Your task to perform on an android device: Search for corsair k70 on costco.com, select the first entry, add it to the cart, then select checkout. Image 0: 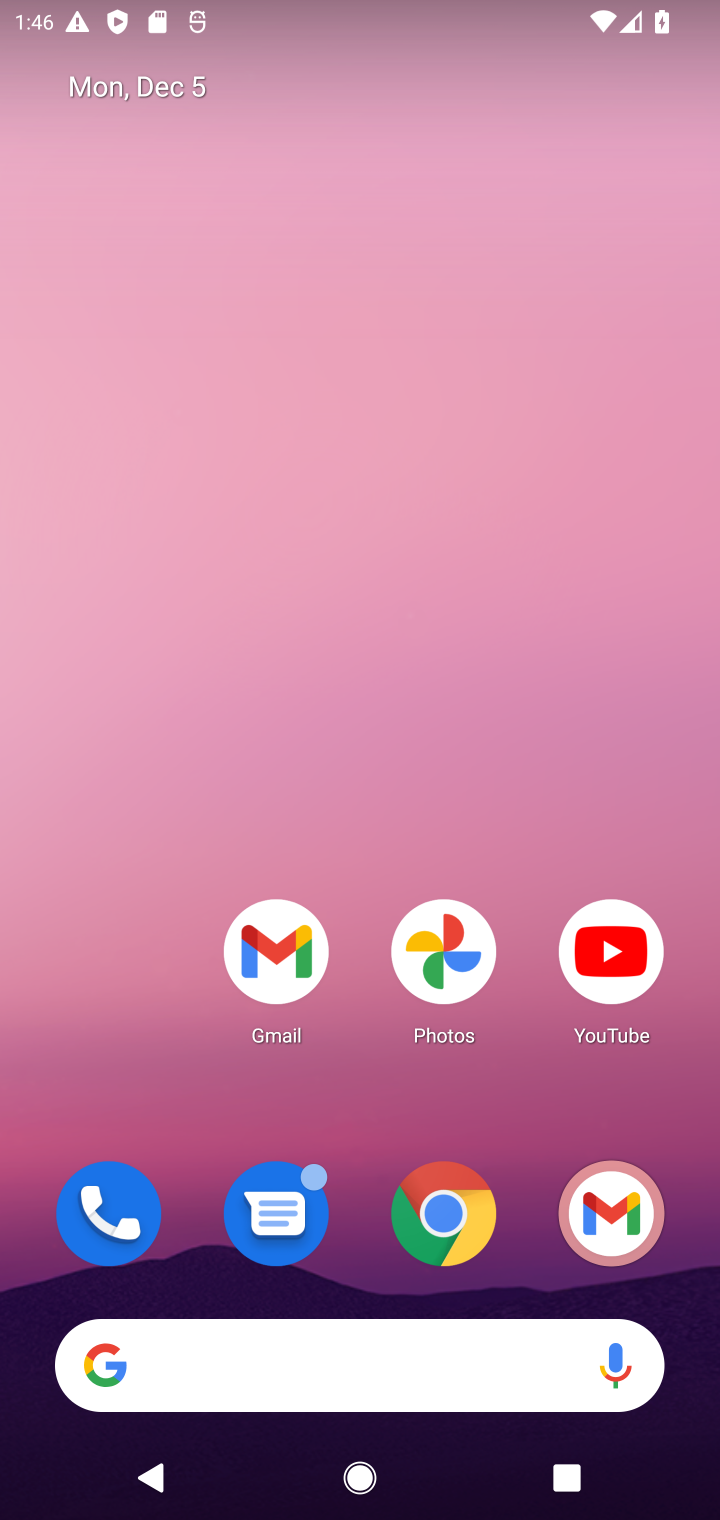
Step 0: click (456, 1232)
Your task to perform on an android device: Search for corsair k70 on costco.com, select the first entry, add it to the cart, then select checkout. Image 1: 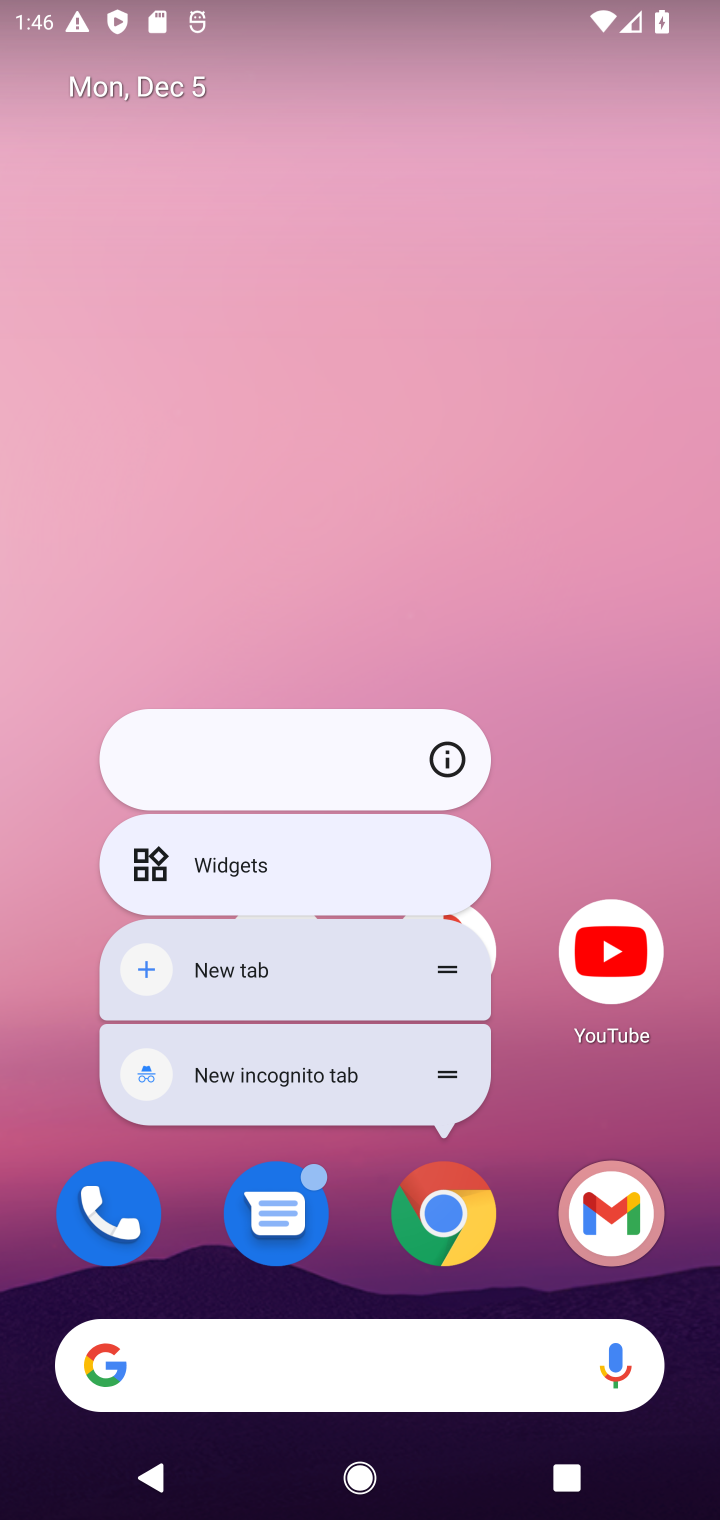
Step 1: click (459, 1217)
Your task to perform on an android device: Search for corsair k70 on costco.com, select the first entry, add it to the cart, then select checkout. Image 2: 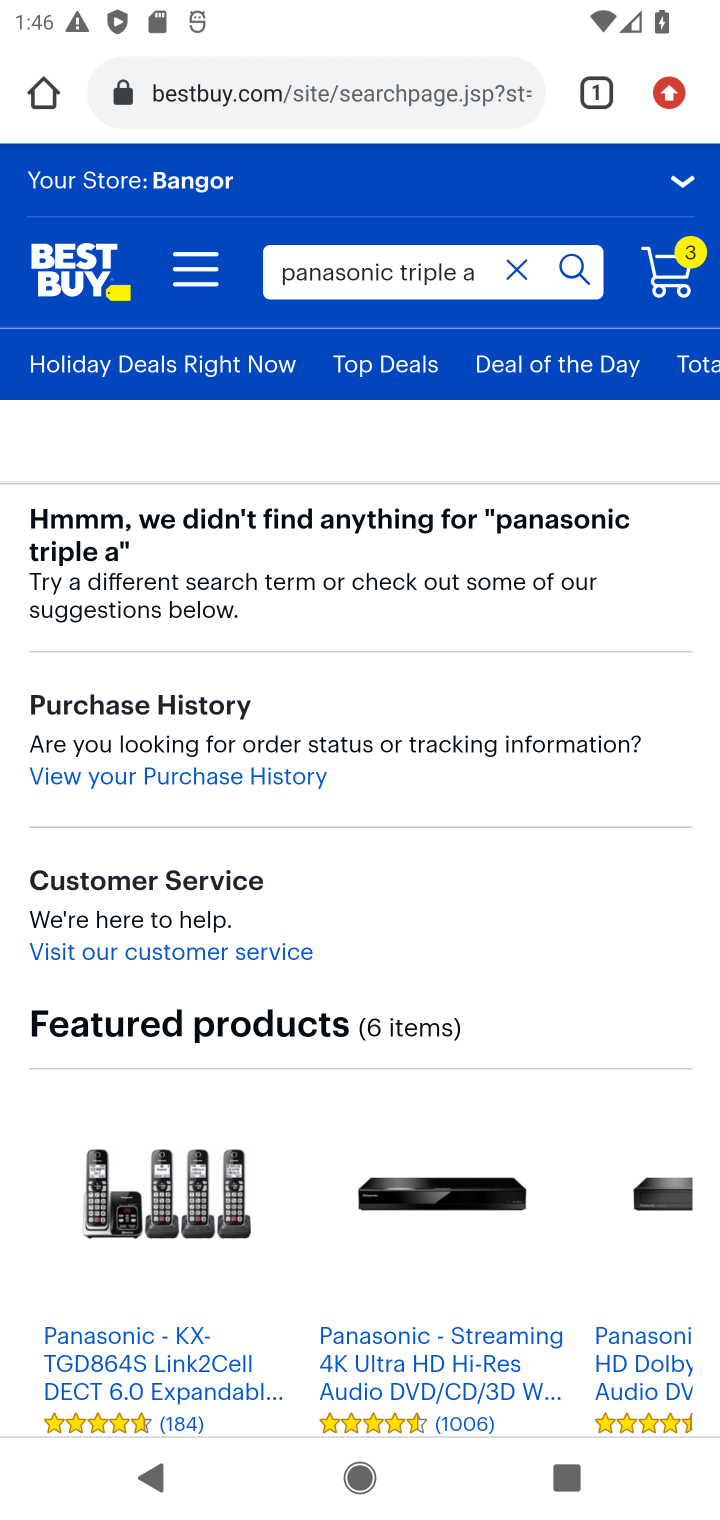
Step 2: click (325, 102)
Your task to perform on an android device: Search for corsair k70 on costco.com, select the first entry, add it to the cart, then select checkout. Image 3: 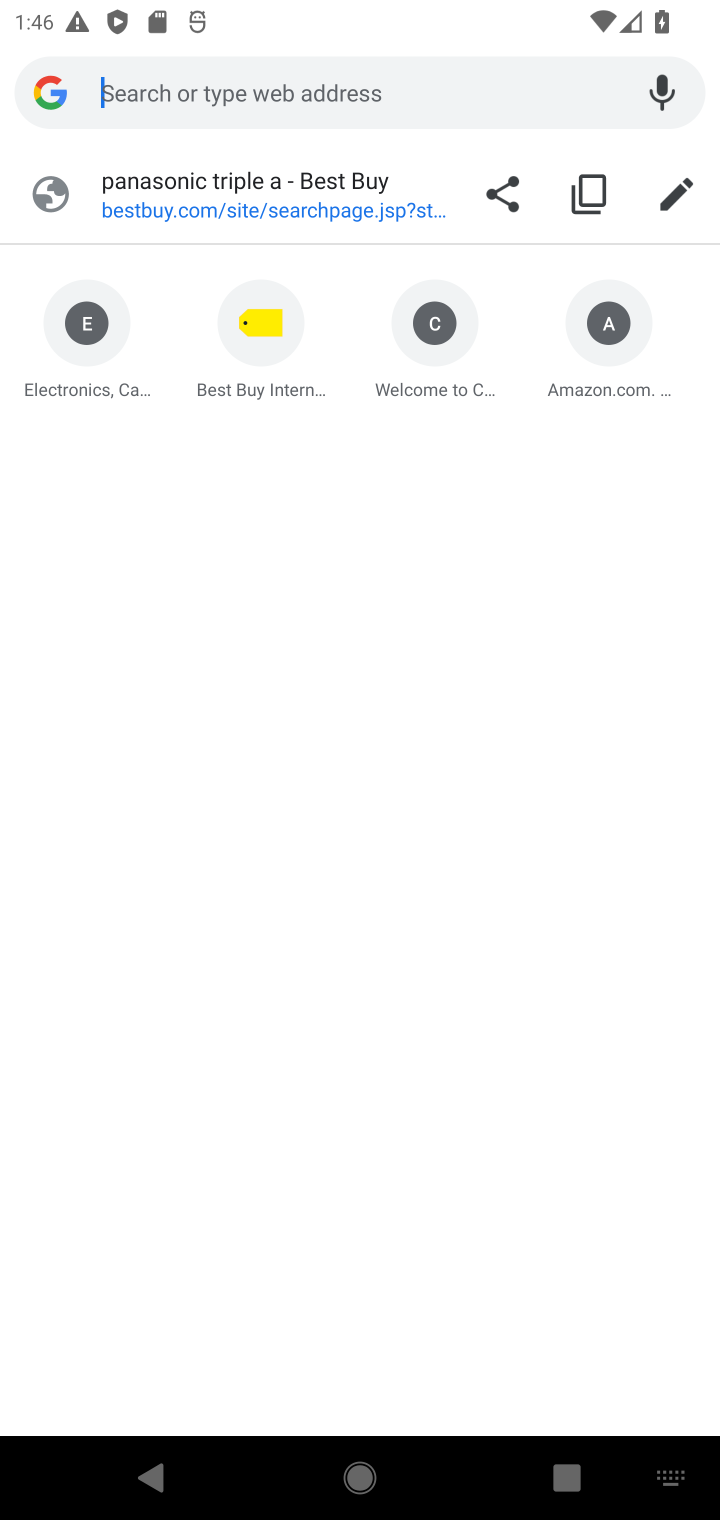
Step 3: type "costco.com"
Your task to perform on an android device: Search for corsair k70 on costco.com, select the first entry, add it to the cart, then select checkout. Image 4: 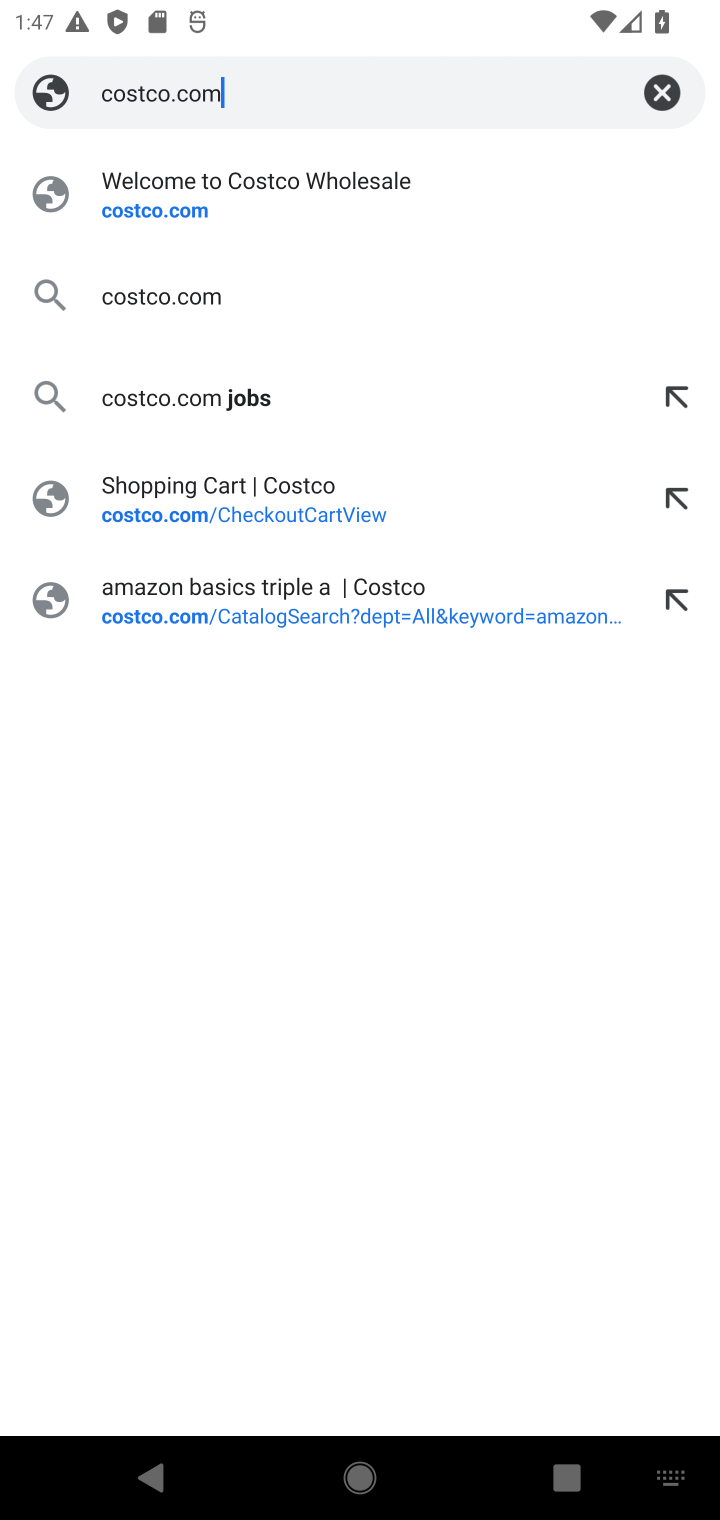
Step 4: click (159, 215)
Your task to perform on an android device: Search for corsair k70 on costco.com, select the first entry, add it to the cart, then select checkout. Image 5: 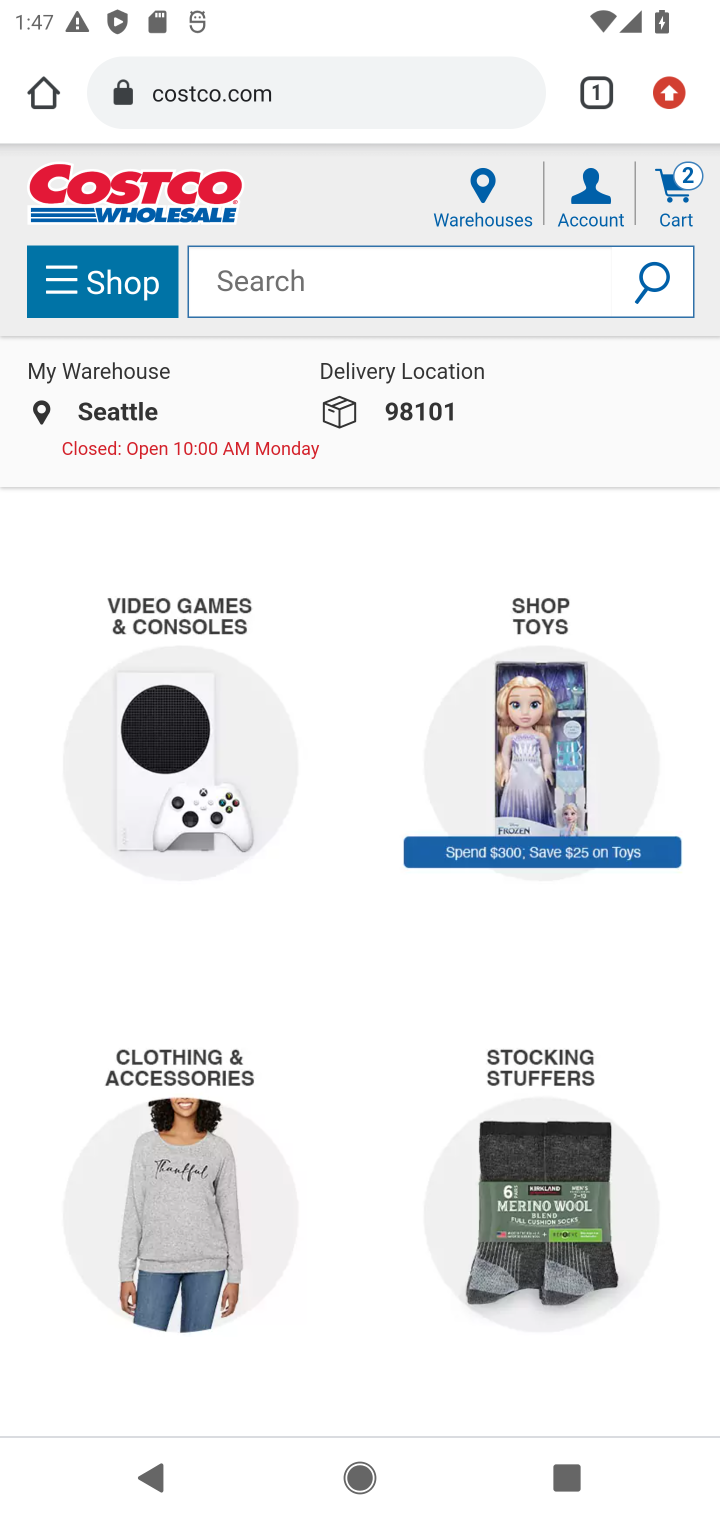
Step 5: click (343, 284)
Your task to perform on an android device: Search for corsair k70 on costco.com, select the first entry, add it to the cart, then select checkout. Image 6: 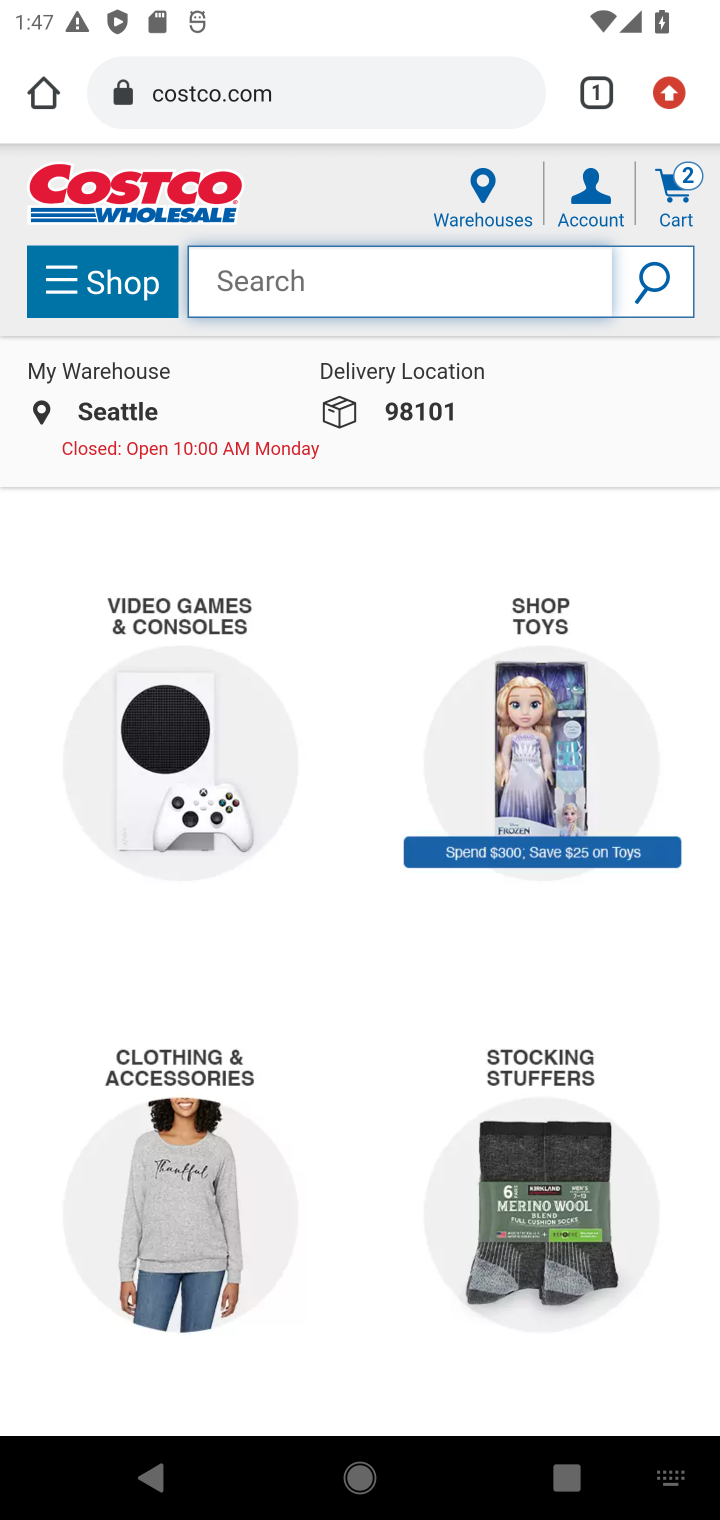
Step 6: type "corsair k70"
Your task to perform on an android device: Search for corsair k70 on costco.com, select the first entry, add it to the cart, then select checkout. Image 7: 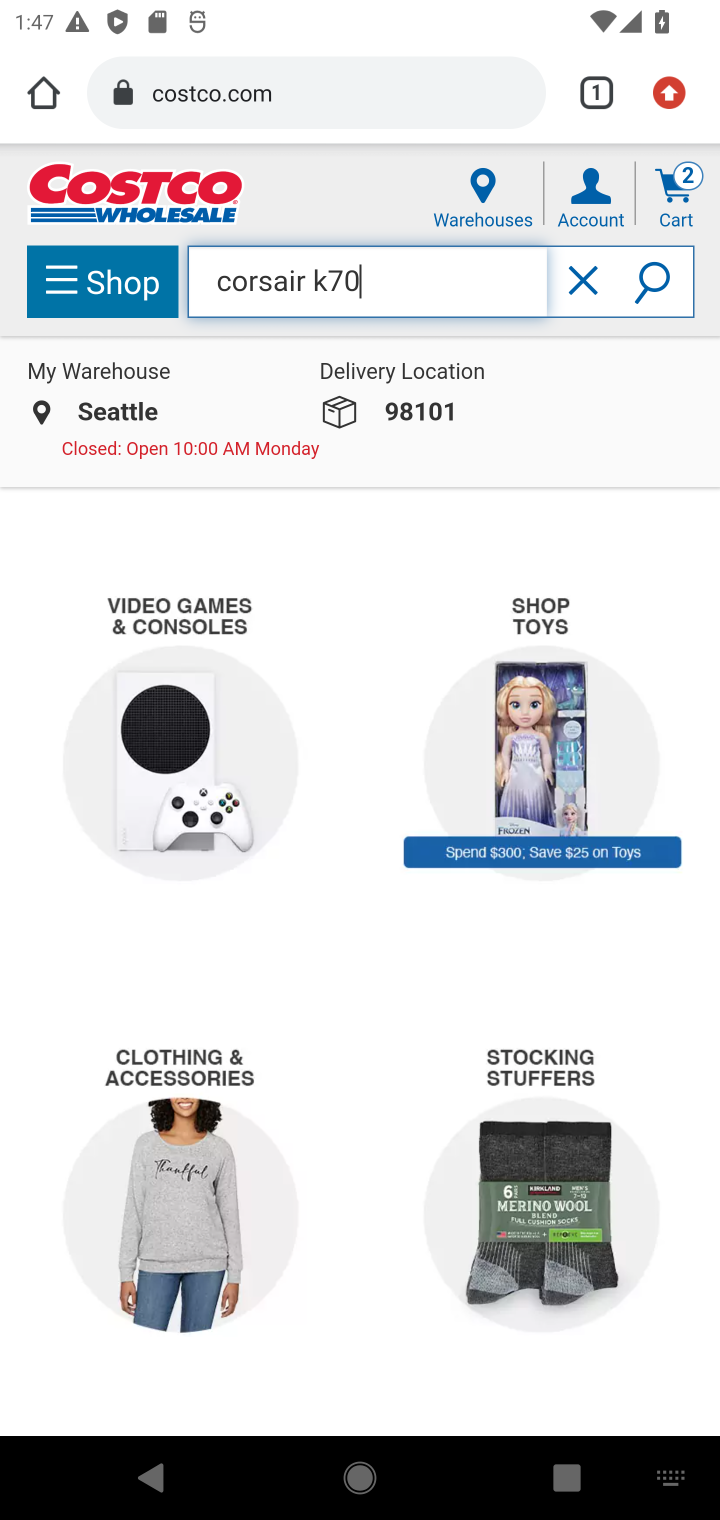
Step 7: click (641, 284)
Your task to perform on an android device: Search for corsair k70 on costco.com, select the first entry, add it to the cart, then select checkout. Image 8: 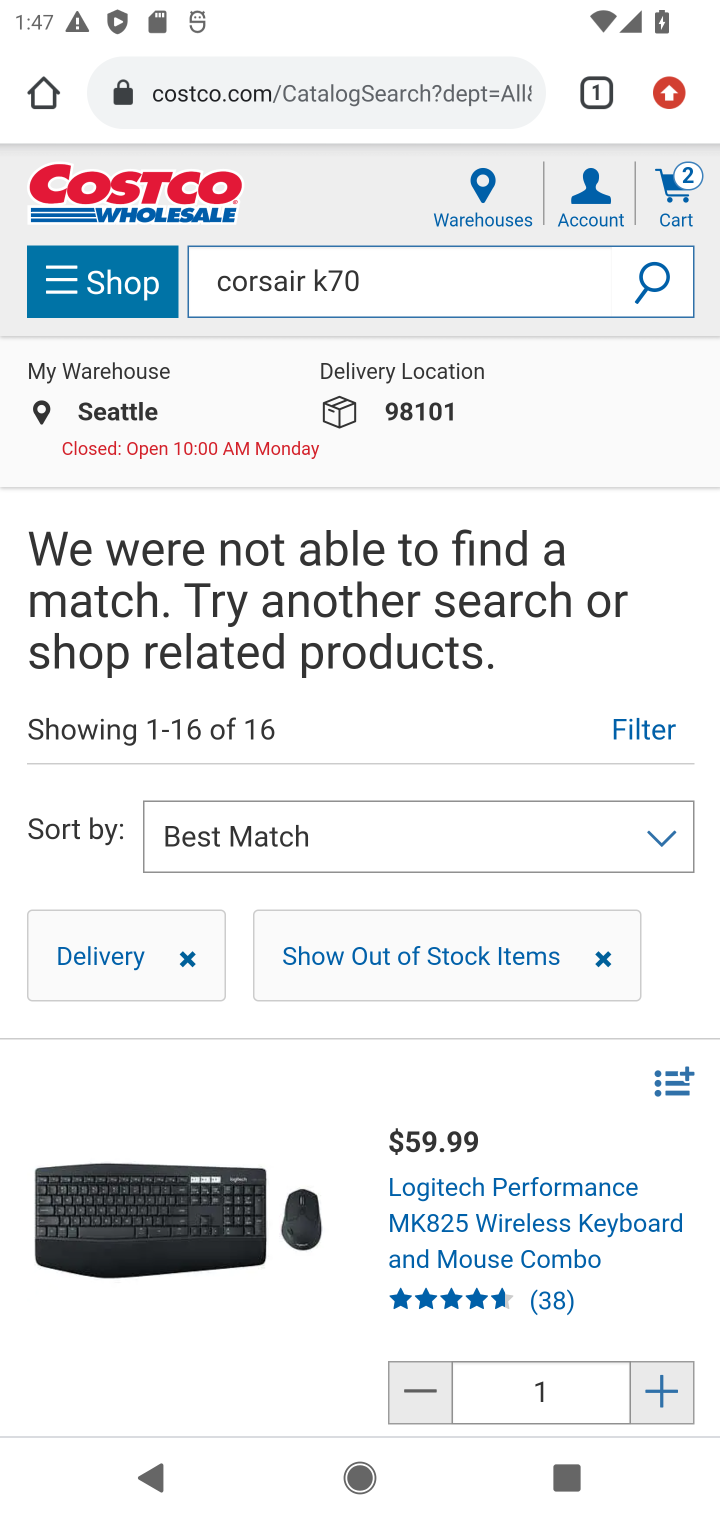
Step 8: task complete